Your task to perform on an android device: Open Google Chrome and click the shortcut for Amazon.com Image 0: 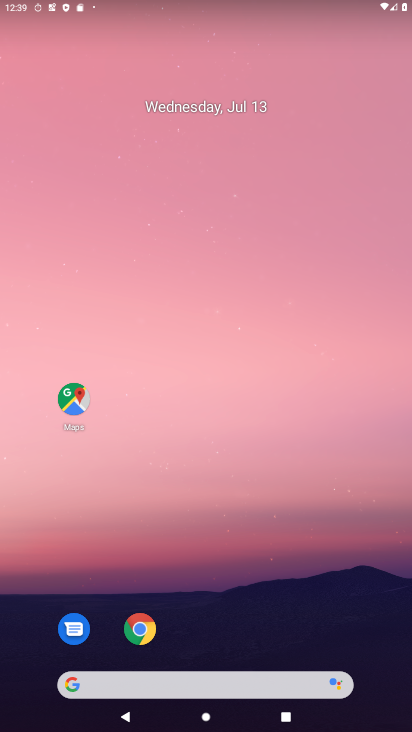
Step 0: click (135, 637)
Your task to perform on an android device: Open Google Chrome and click the shortcut for Amazon.com Image 1: 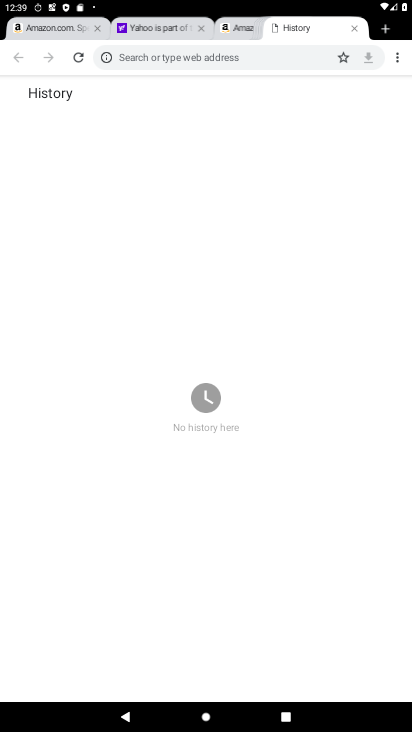
Step 1: click (380, 30)
Your task to perform on an android device: Open Google Chrome and click the shortcut for Amazon.com Image 2: 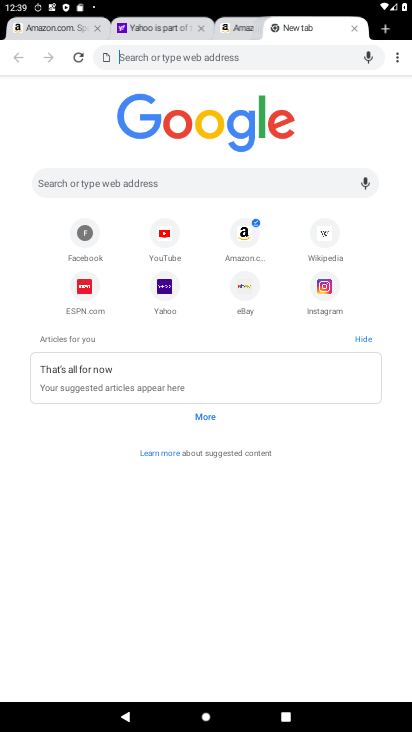
Step 2: click (236, 227)
Your task to perform on an android device: Open Google Chrome and click the shortcut for Amazon.com Image 3: 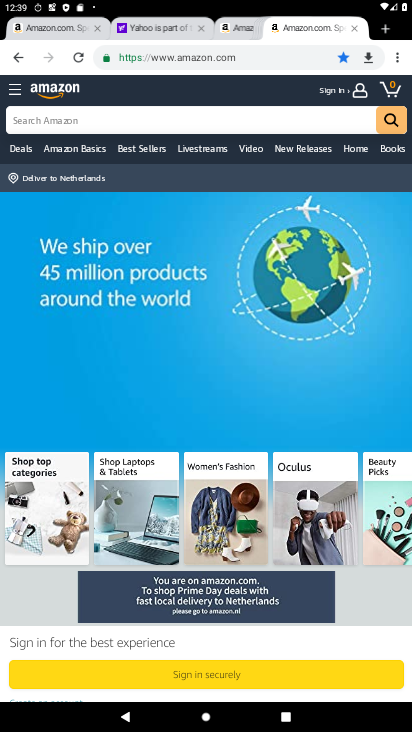
Step 3: task complete